Your task to perform on an android device: search for starred emails in the gmail app Image 0: 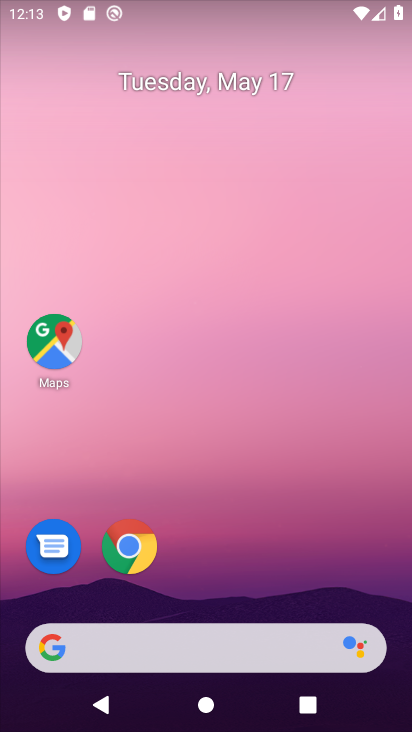
Step 0: drag from (398, 627) to (379, 67)
Your task to perform on an android device: search for starred emails in the gmail app Image 1: 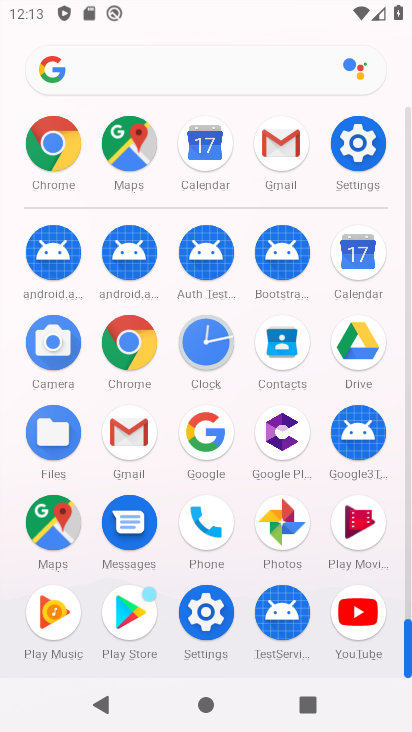
Step 1: click (409, 603)
Your task to perform on an android device: search for starred emails in the gmail app Image 2: 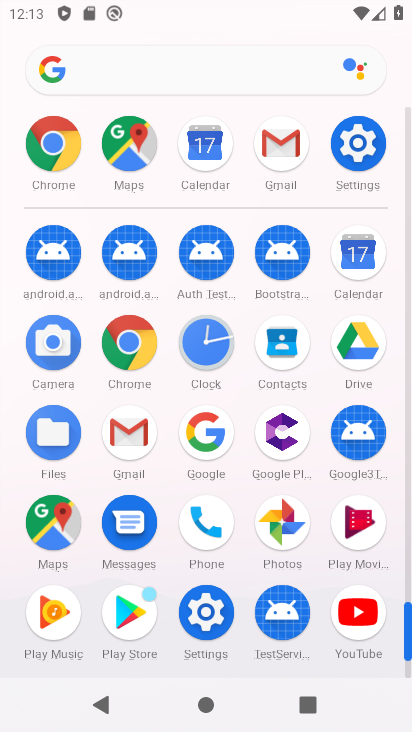
Step 2: click (122, 429)
Your task to perform on an android device: search for starred emails in the gmail app Image 3: 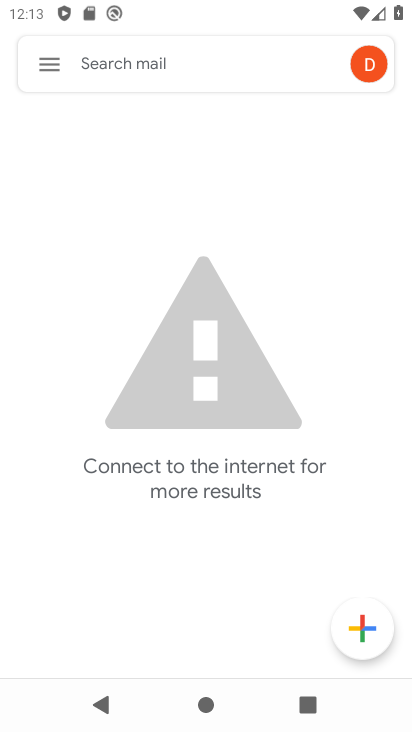
Step 3: click (42, 60)
Your task to perform on an android device: search for starred emails in the gmail app Image 4: 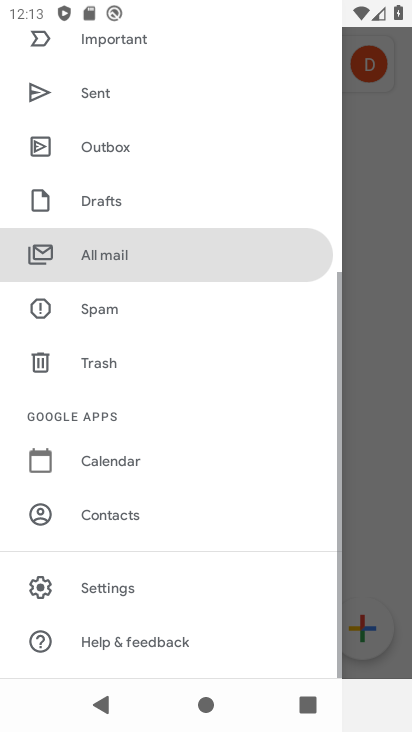
Step 4: drag from (208, 133) to (199, 475)
Your task to perform on an android device: search for starred emails in the gmail app Image 5: 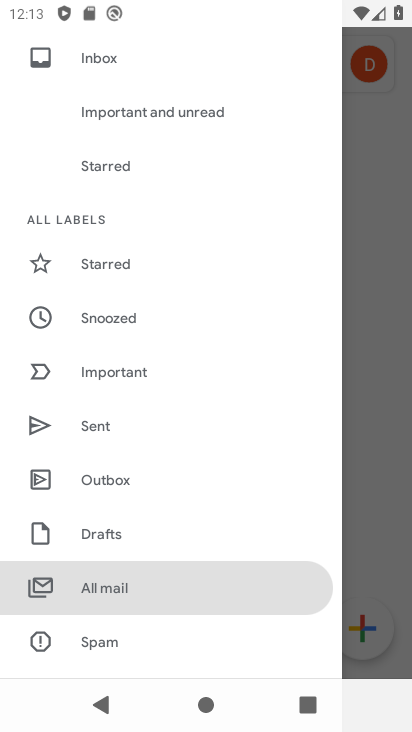
Step 5: click (98, 257)
Your task to perform on an android device: search for starred emails in the gmail app Image 6: 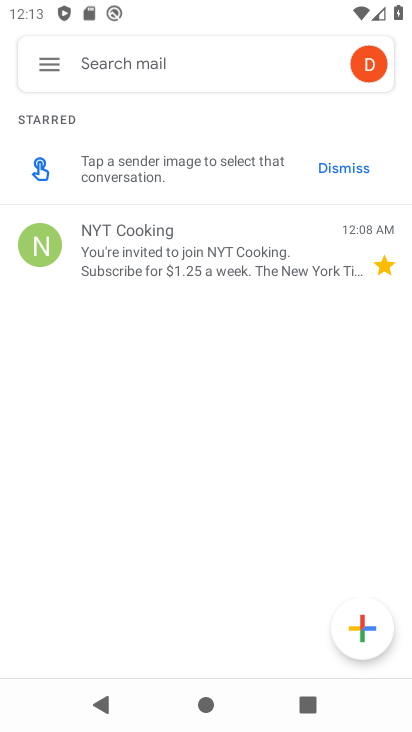
Step 6: task complete